Your task to perform on an android device: delete location history Image 0: 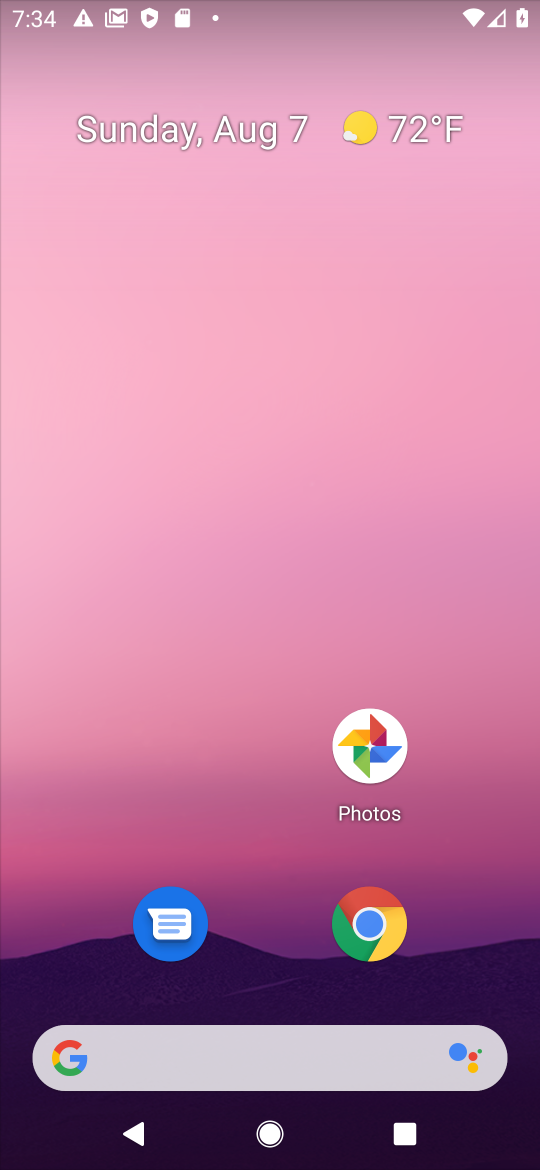
Step 0: drag from (351, 941) to (202, 200)
Your task to perform on an android device: delete location history Image 1: 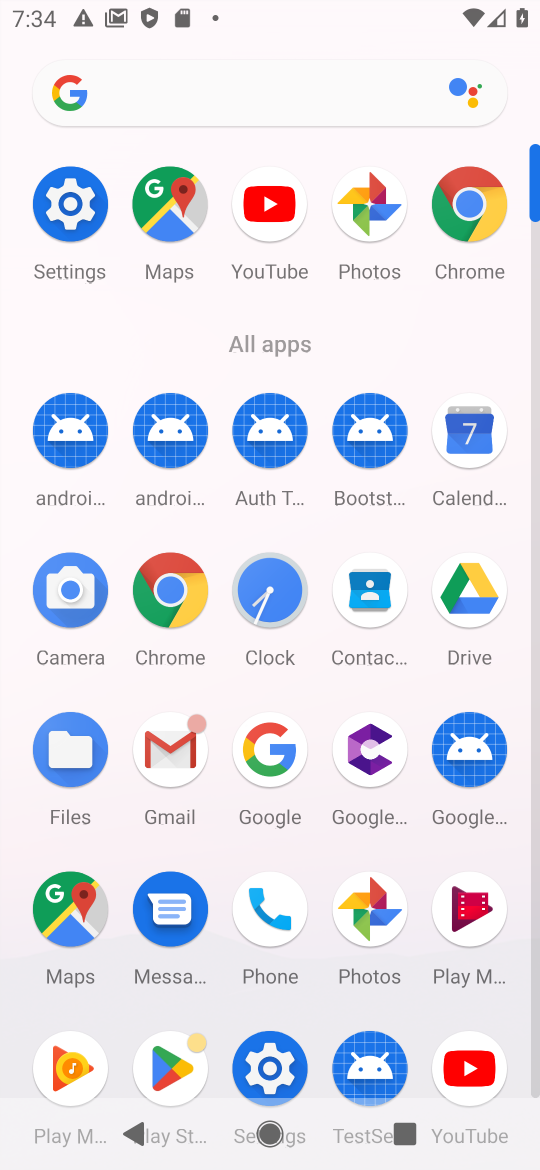
Step 1: click (63, 213)
Your task to perform on an android device: delete location history Image 2: 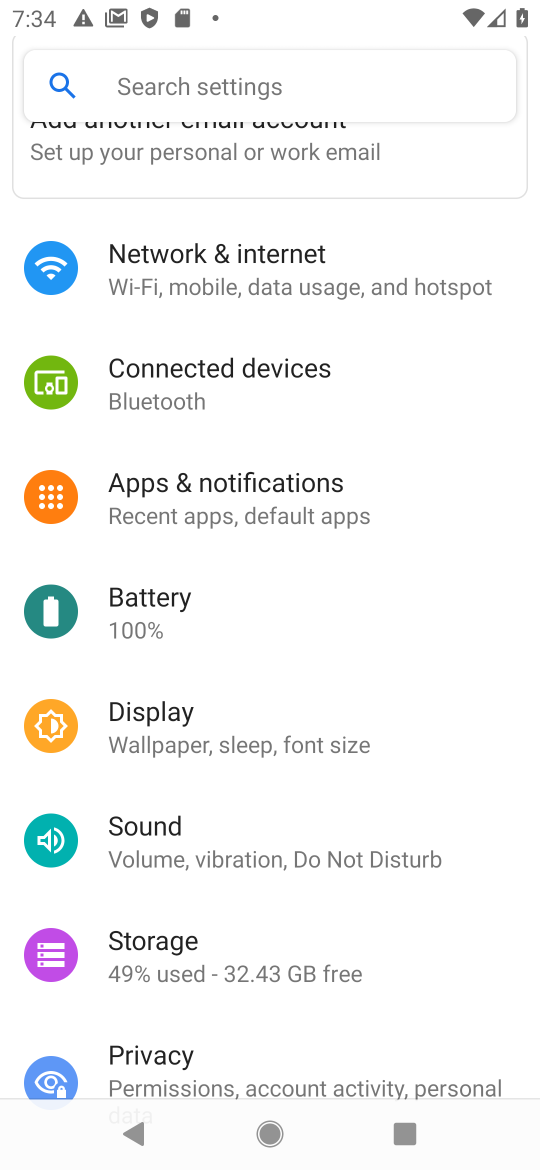
Step 2: drag from (242, 955) to (266, 756)
Your task to perform on an android device: delete location history Image 3: 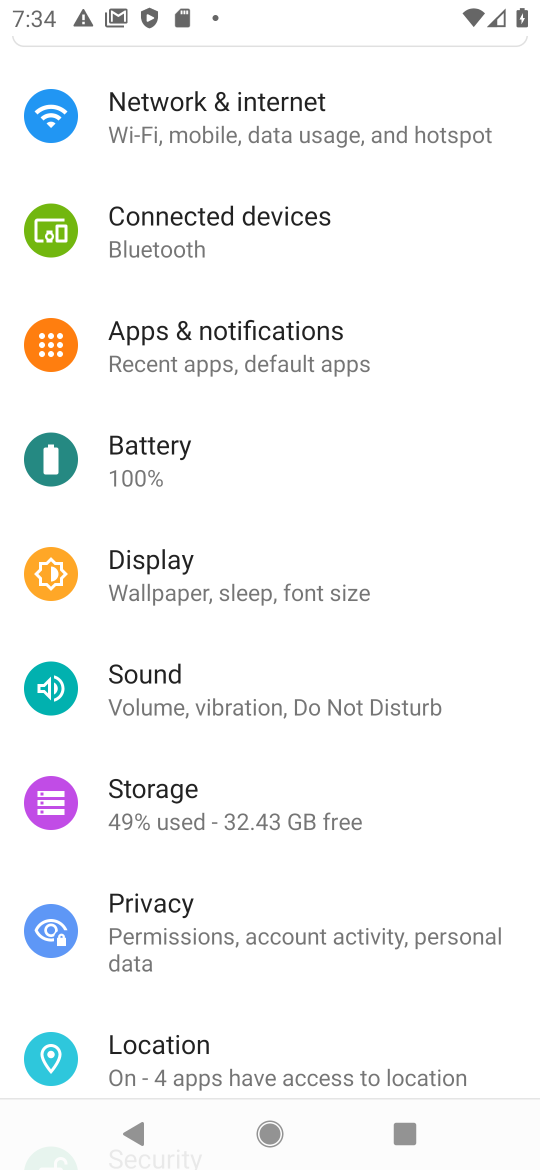
Step 3: click (205, 1049)
Your task to perform on an android device: delete location history Image 4: 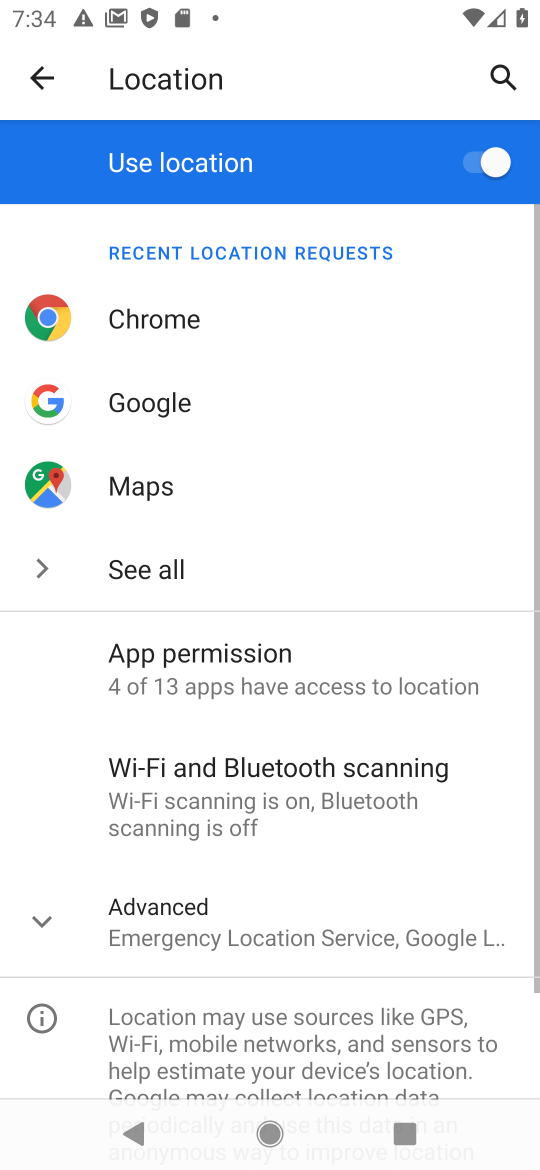
Step 4: click (102, 916)
Your task to perform on an android device: delete location history Image 5: 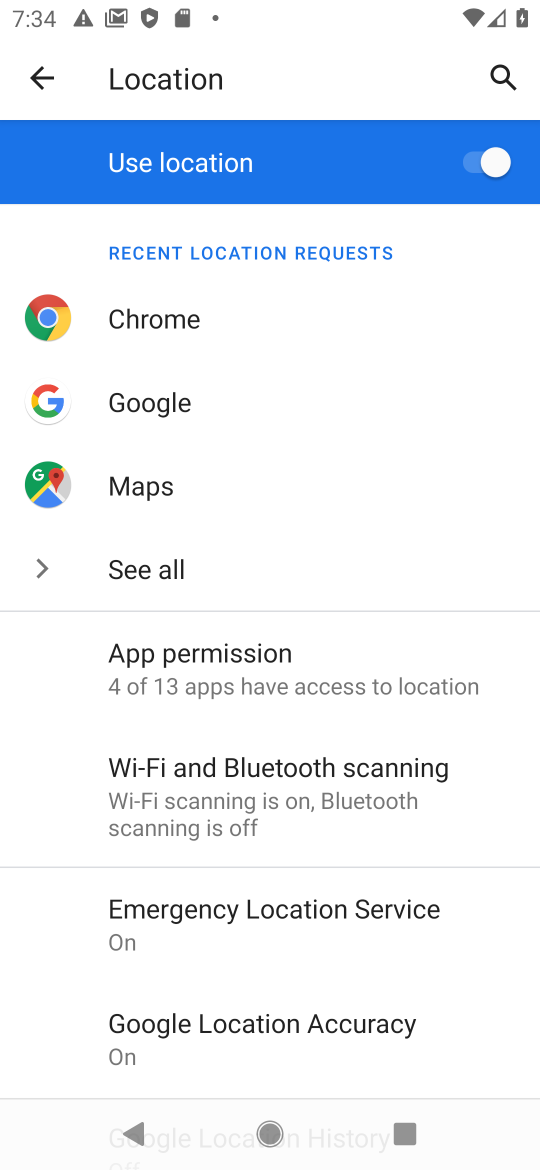
Step 5: drag from (173, 988) to (187, 804)
Your task to perform on an android device: delete location history Image 6: 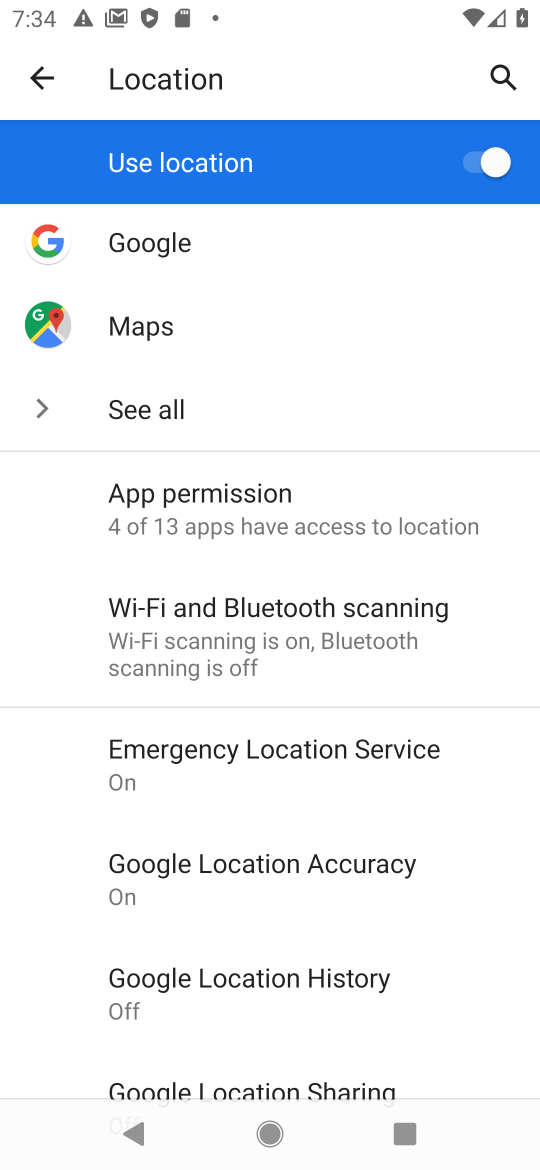
Step 6: click (222, 977)
Your task to perform on an android device: delete location history Image 7: 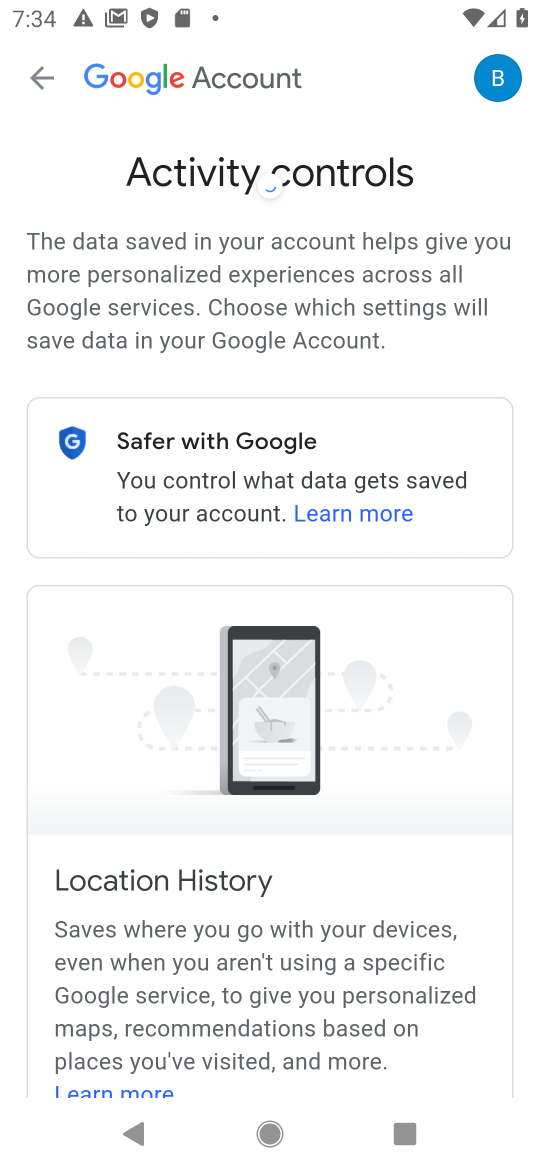
Step 7: drag from (217, 969) to (228, 687)
Your task to perform on an android device: delete location history Image 8: 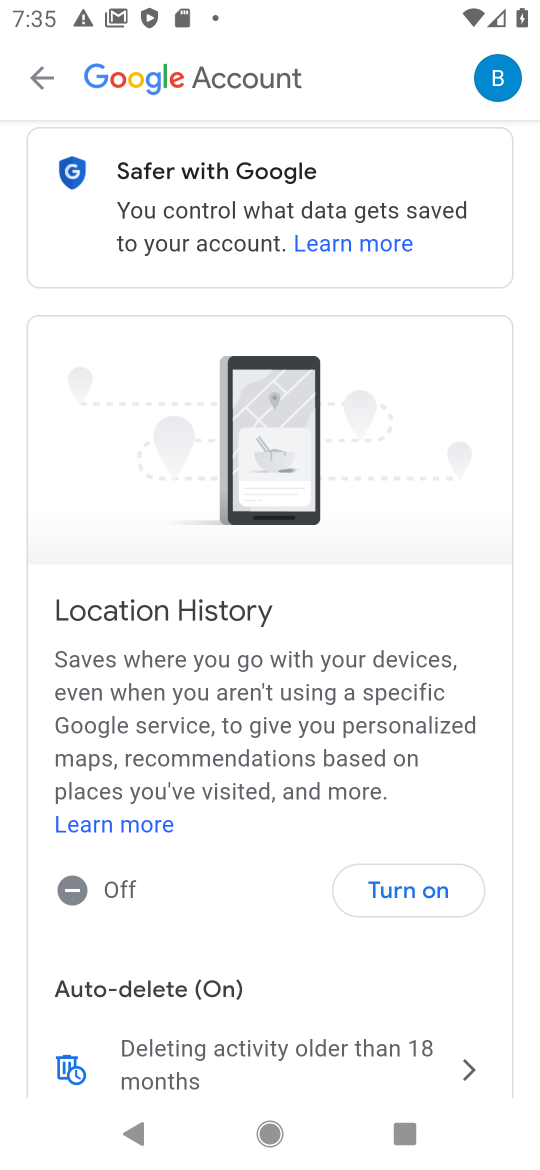
Step 8: click (283, 1054)
Your task to perform on an android device: delete location history Image 9: 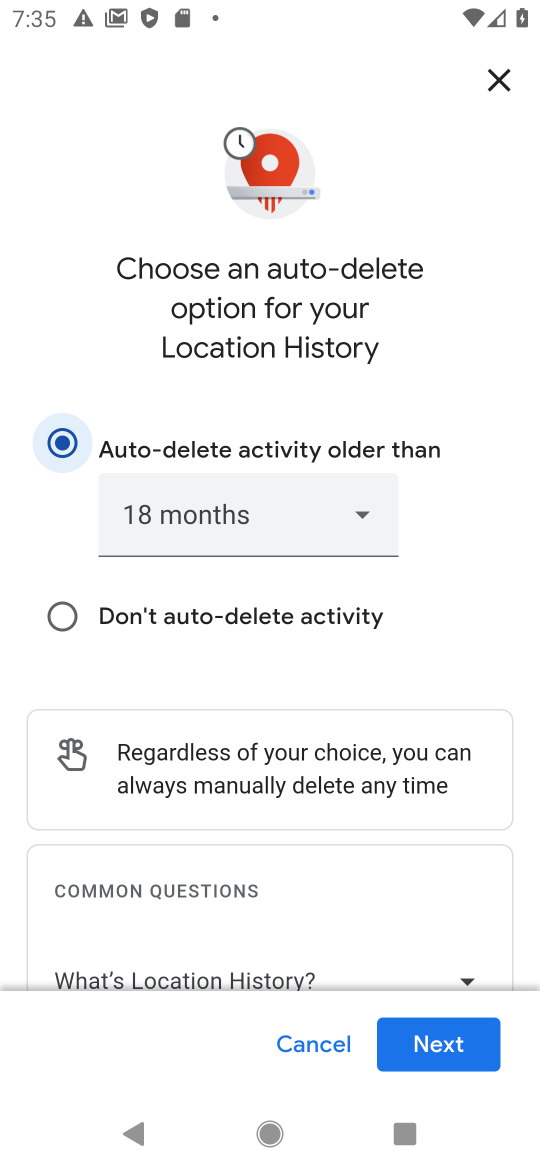
Step 9: task complete